Your task to perform on an android device: turn on javascript in the chrome app Image 0: 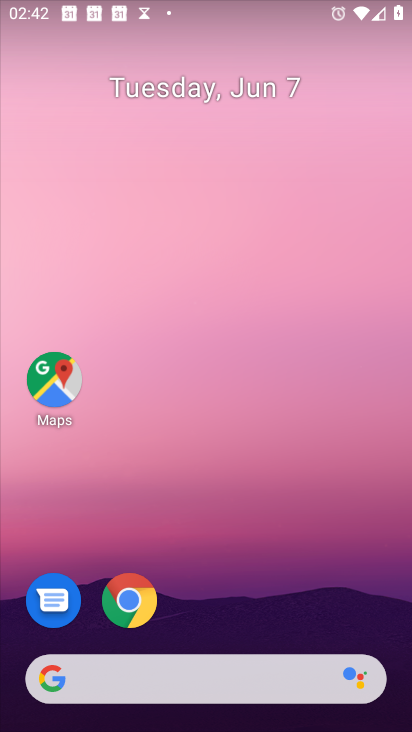
Step 0: click (133, 598)
Your task to perform on an android device: turn on javascript in the chrome app Image 1: 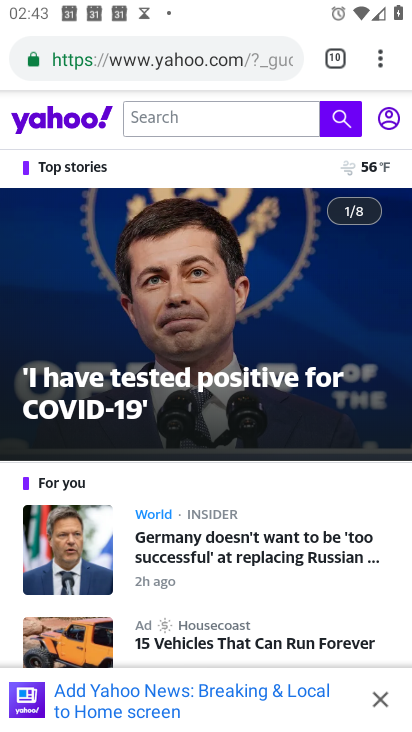
Step 1: click (381, 64)
Your task to perform on an android device: turn on javascript in the chrome app Image 2: 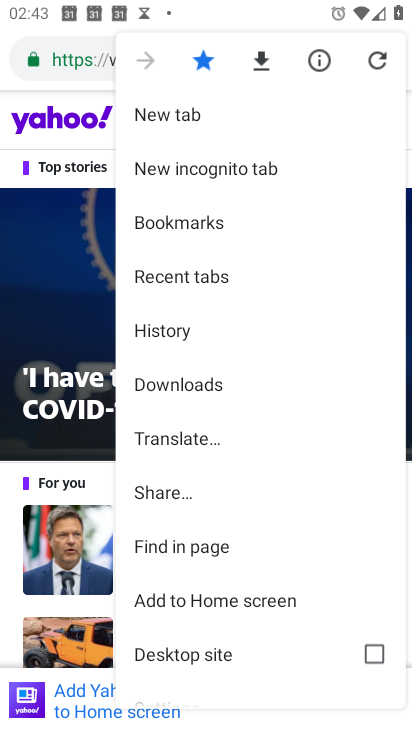
Step 2: drag from (230, 440) to (230, 339)
Your task to perform on an android device: turn on javascript in the chrome app Image 3: 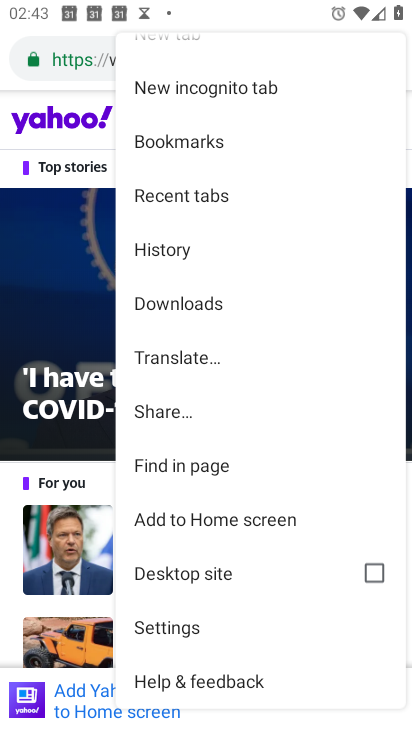
Step 3: click (174, 627)
Your task to perform on an android device: turn on javascript in the chrome app Image 4: 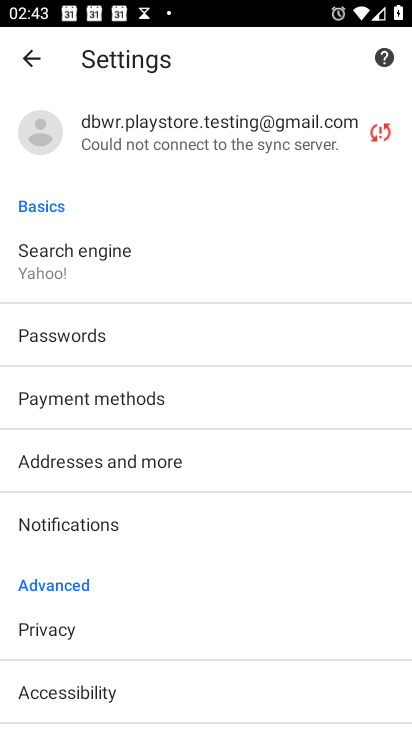
Step 4: drag from (170, 671) to (175, 372)
Your task to perform on an android device: turn on javascript in the chrome app Image 5: 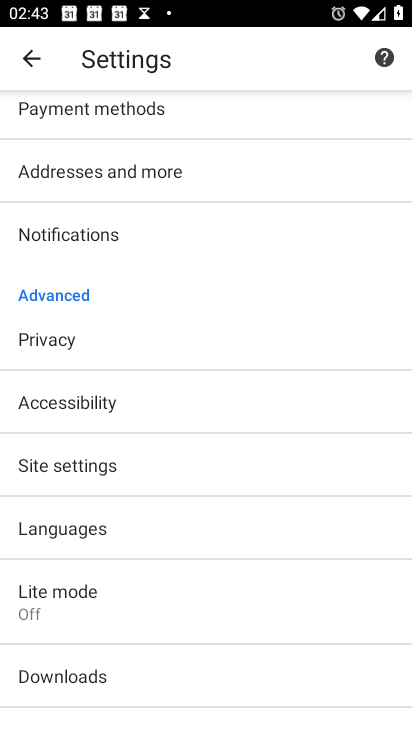
Step 5: click (89, 464)
Your task to perform on an android device: turn on javascript in the chrome app Image 6: 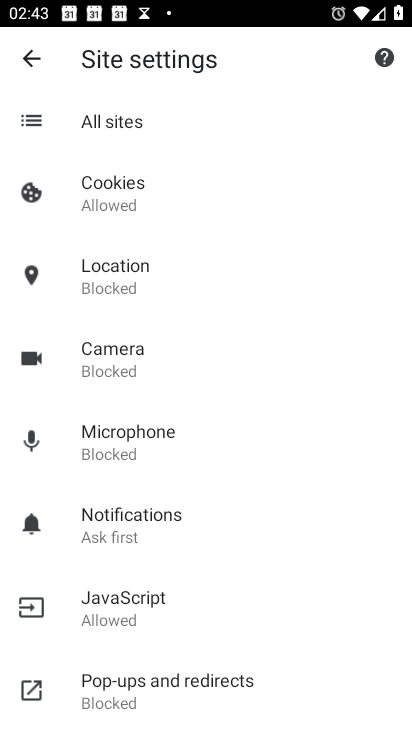
Step 6: click (122, 600)
Your task to perform on an android device: turn on javascript in the chrome app Image 7: 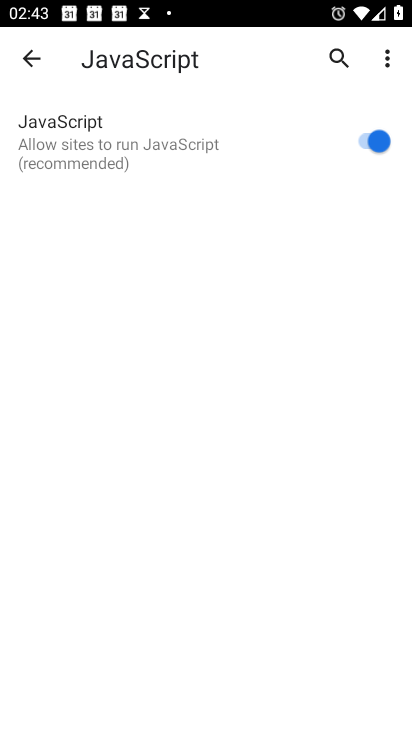
Step 7: task complete